Your task to perform on an android device: visit the assistant section in the google photos Image 0: 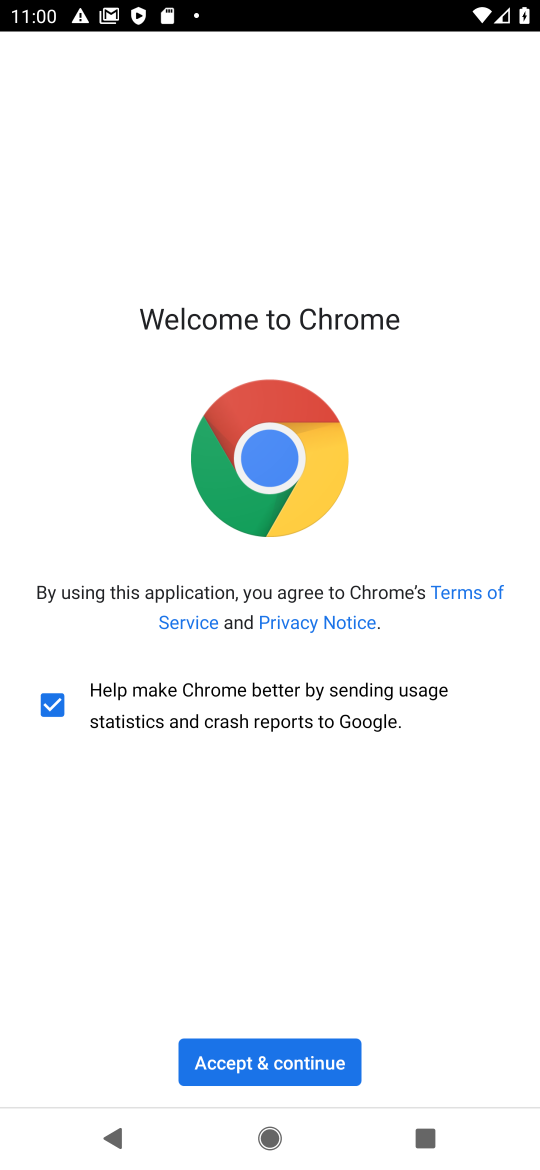
Step 0: press home button
Your task to perform on an android device: visit the assistant section in the google photos Image 1: 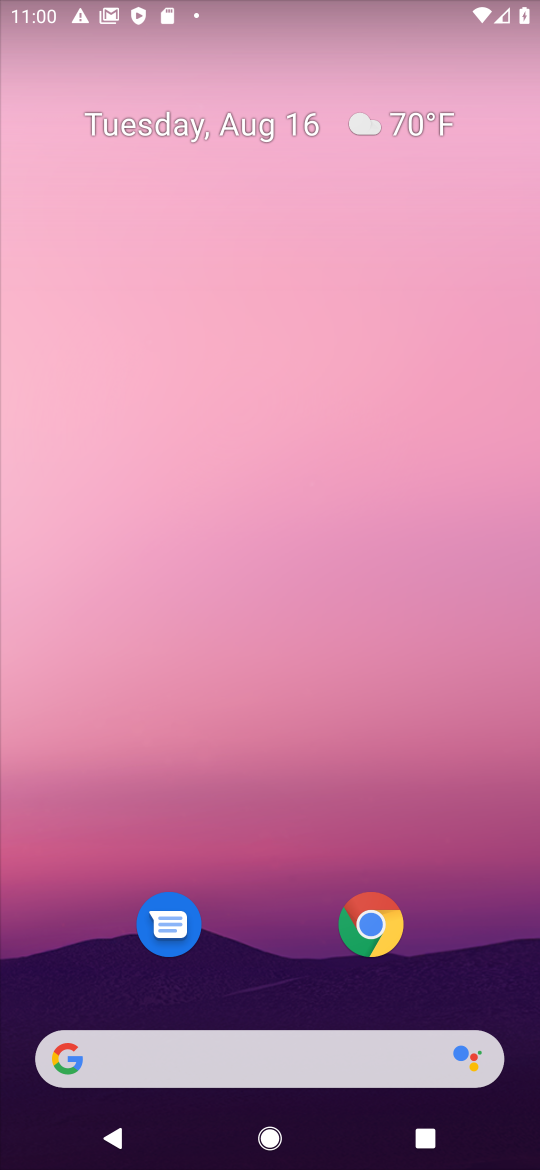
Step 1: drag from (236, 1002) to (182, 15)
Your task to perform on an android device: visit the assistant section in the google photos Image 2: 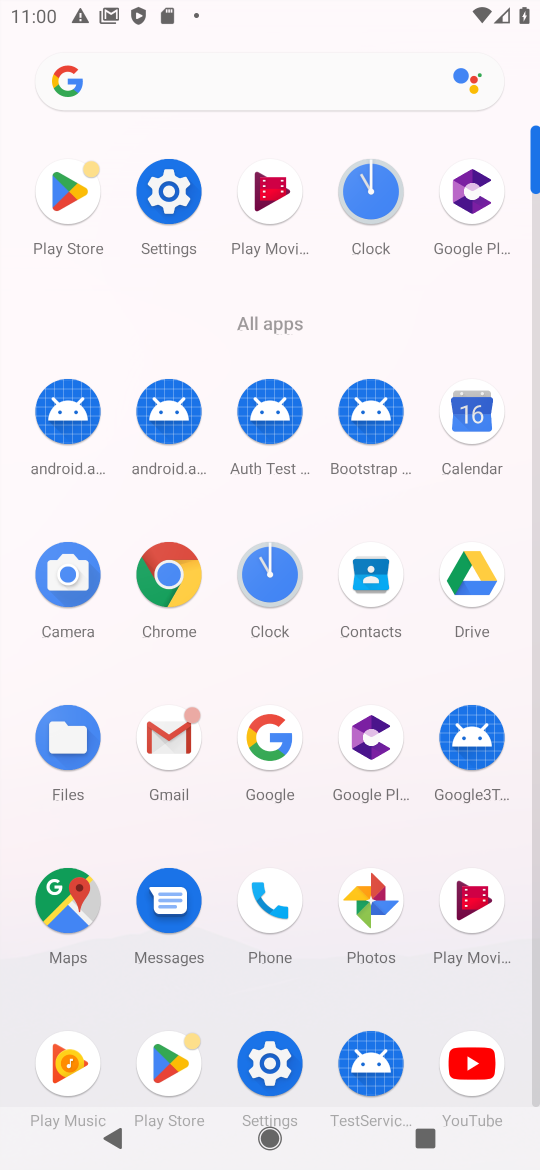
Step 2: click (392, 913)
Your task to perform on an android device: visit the assistant section in the google photos Image 3: 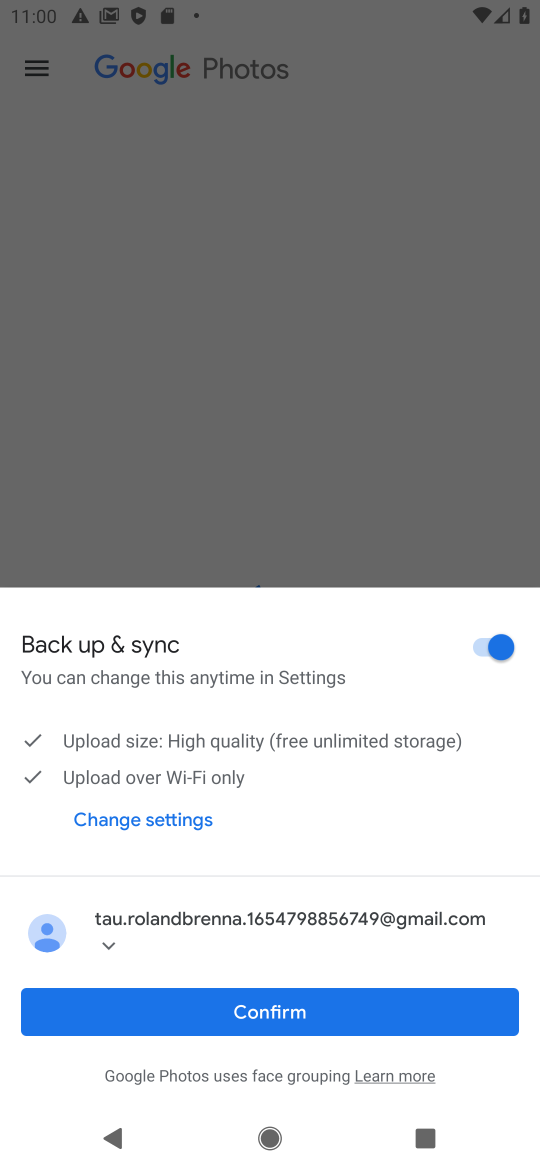
Step 3: click (330, 999)
Your task to perform on an android device: visit the assistant section in the google photos Image 4: 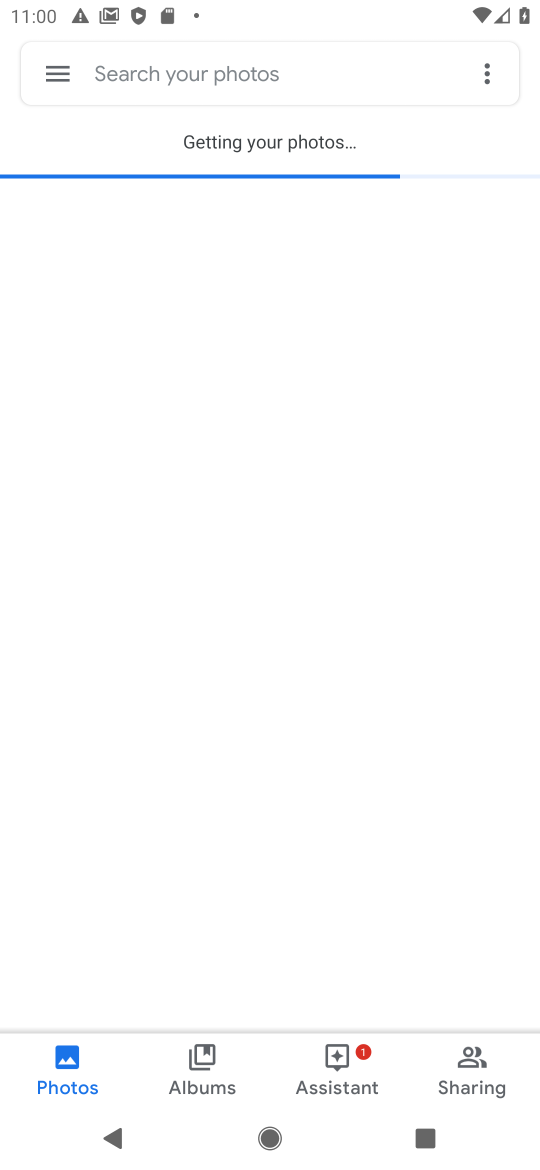
Step 4: click (347, 1053)
Your task to perform on an android device: visit the assistant section in the google photos Image 5: 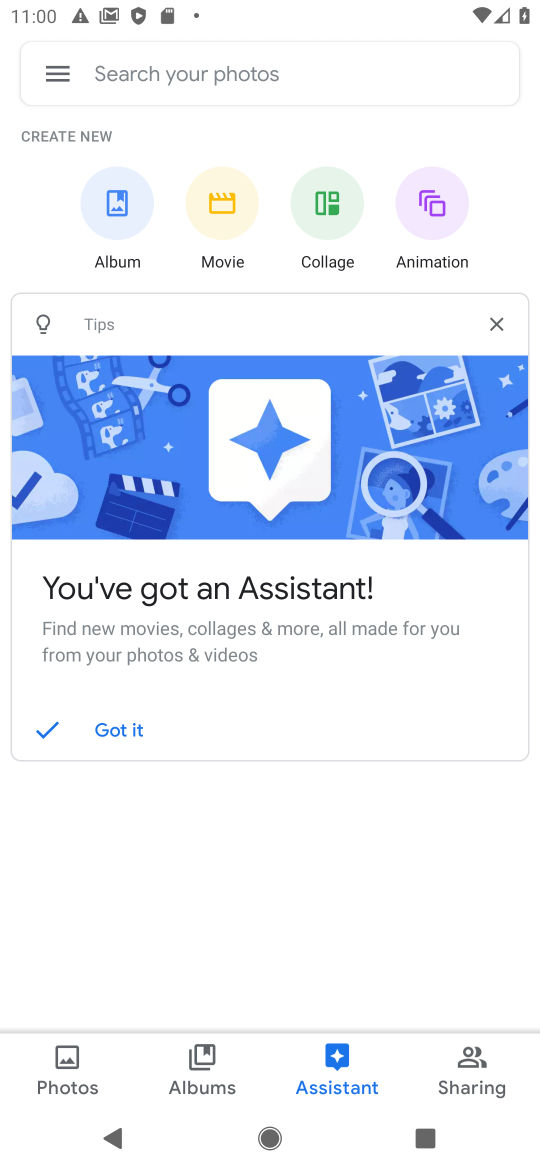
Step 5: task complete